Your task to perform on an android device: delete browsing data in the chrome app Image 0: 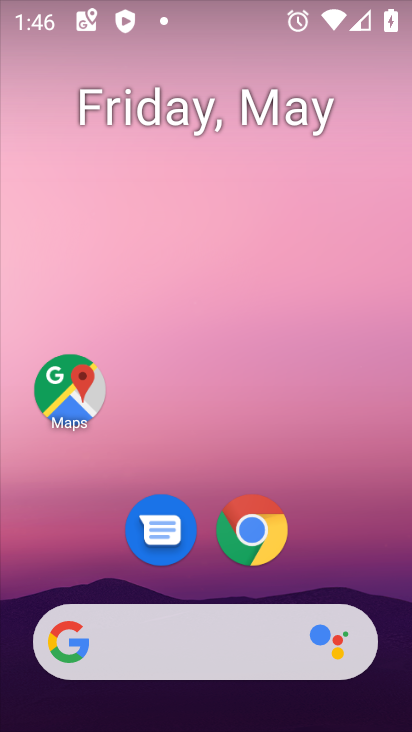
Step 0: click (245, 529)
Your task to perform on an android device: delete browsing data in the chrome app Image 1: 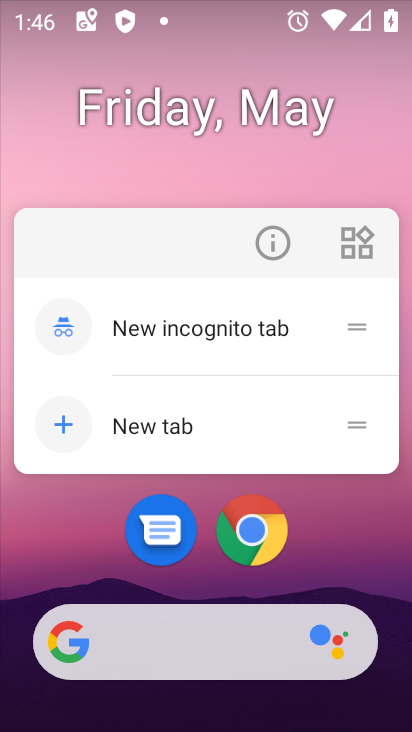
Step 1: click (243, 520)
Your task to perform on an android device: delete browsing data in the chrome app Image 2: 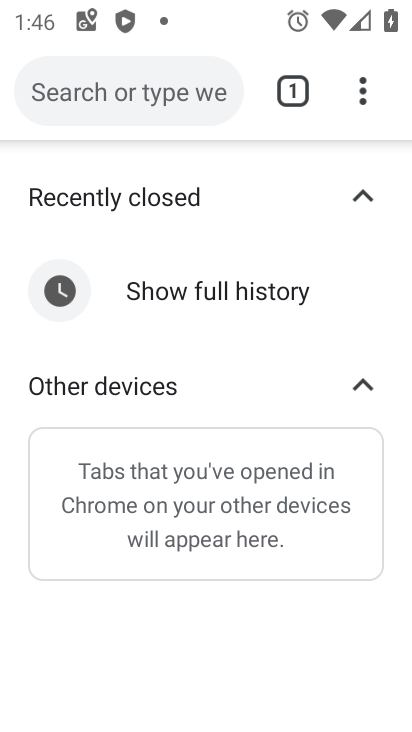
Step 2: click (362, 89)
Your task to perform on an android device: delete browsing data in the chrome app Image 3: 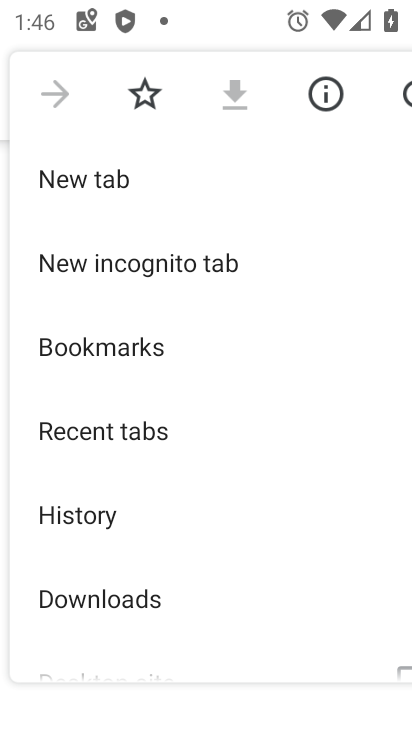
Step 3: drag from (171, 578) to (189, 166)
Your task to perform on an android device: delete browsing data in the chrome app Image 4: 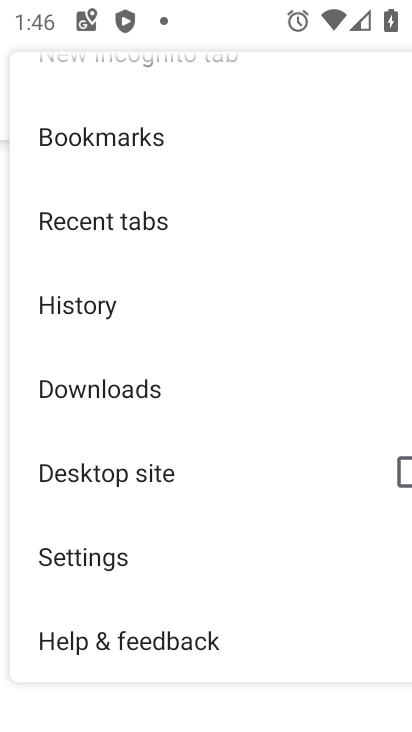
Step 4: click (91, 321)
Your task to perform on an android device: delete browsing data in the chrome app Image 5: 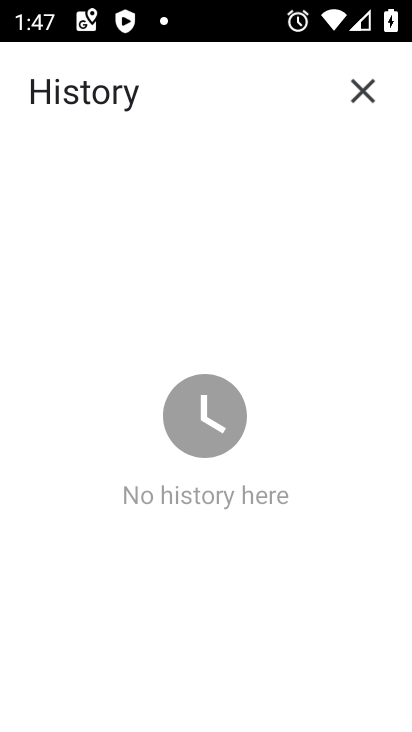
Step 5: task complete